Your task to perform on an android device: Open Reddit.com Image 0: 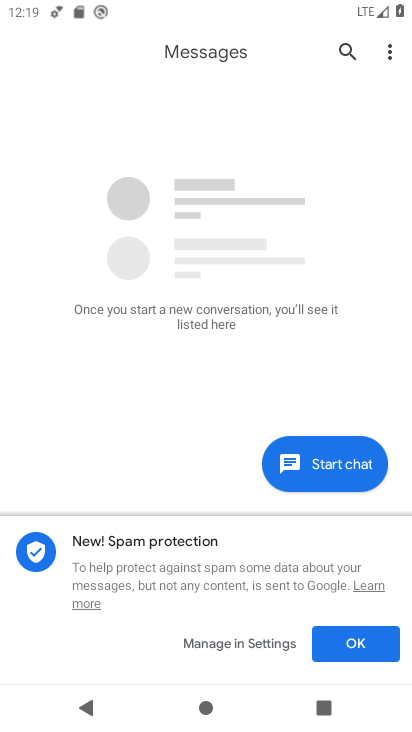
Step 0: press home button
Your task to perform on an android device: Open Reddit.com Image 1: 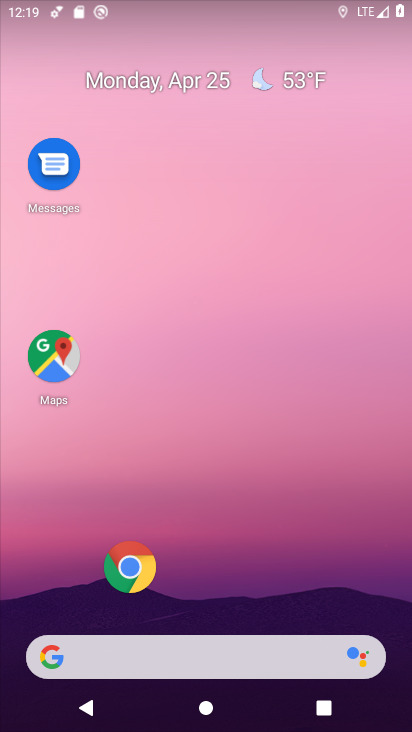
Step 1: drag from (188, 544) to (282, 278)
Your task to perform on an android device: Open Reddit.com Image 2: 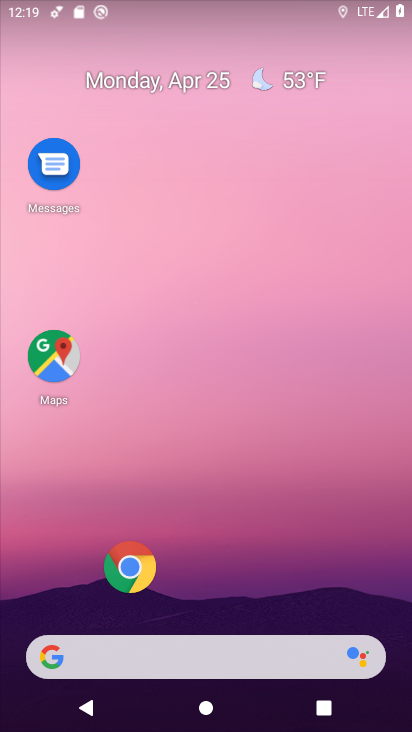
Step 2: drag from (271, 462) to (338, 6)
Your task to perform on an android device: Open Reddit.com Image 3: 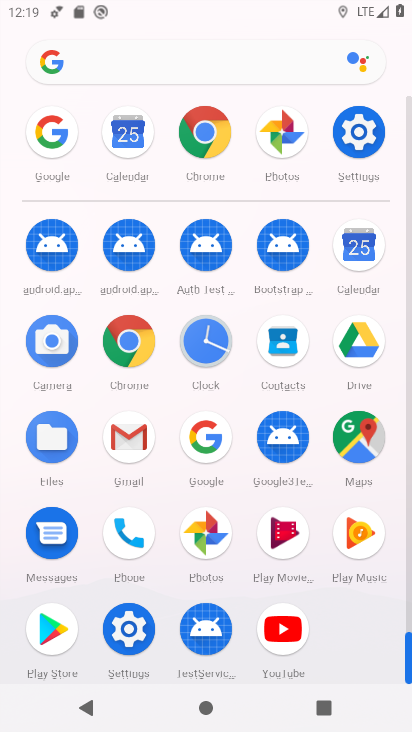
Step 3: click (221, 165)
Your task to perform on an android device: Open Reddit.com Image 4: 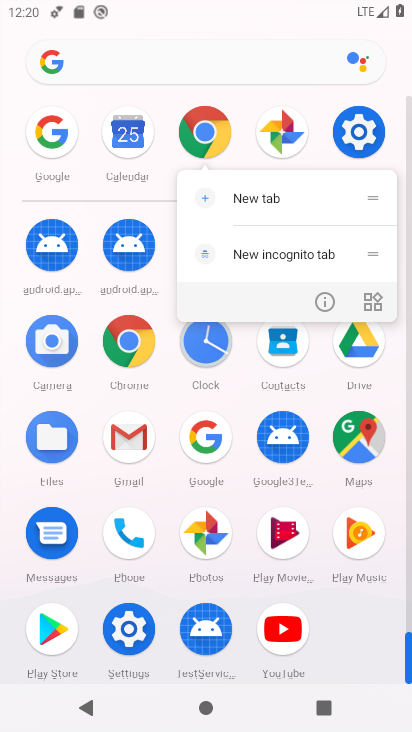
Step 4: click (213, 133)
Your task to perform on an android device: Open Reddit.com Image 5: 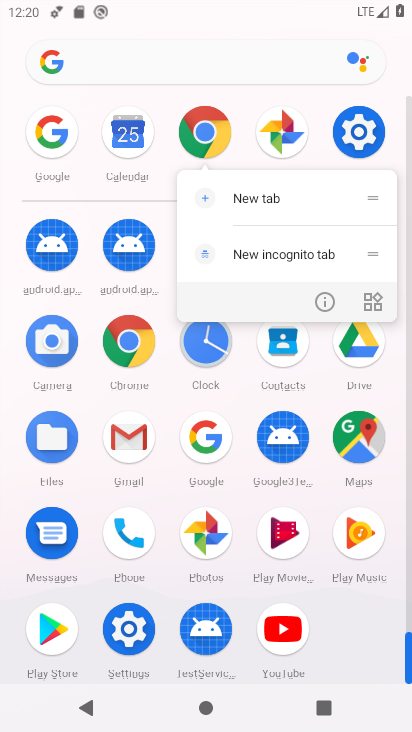
Step 5: click (216, 109)
Your task to perform on an android device: Open Reddit.com Image 6: 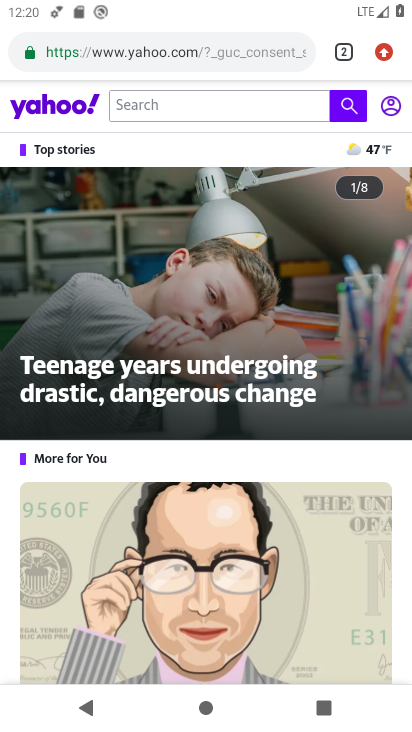
Step 6: click (263, 56)
Your task to perform on an android device: Open Reddit.com Image 7: 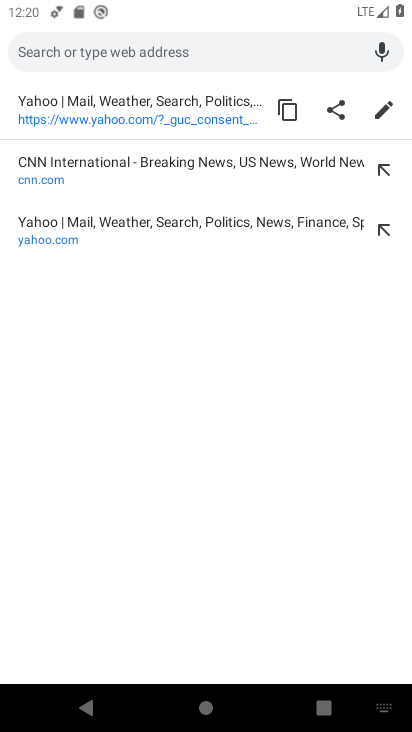
Step 7: click (232, 54)
Your task to perform on an android device: Open Reddit.com Image 8: 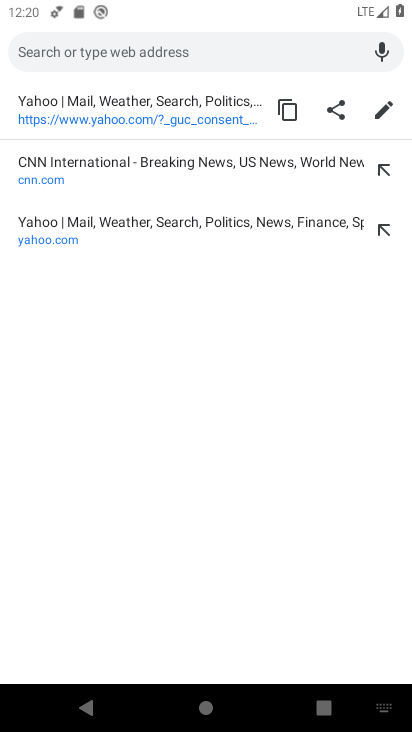
Step 8: type "reddit.com"
Your task to perform on an android device: Open Reddit.com Image 9: 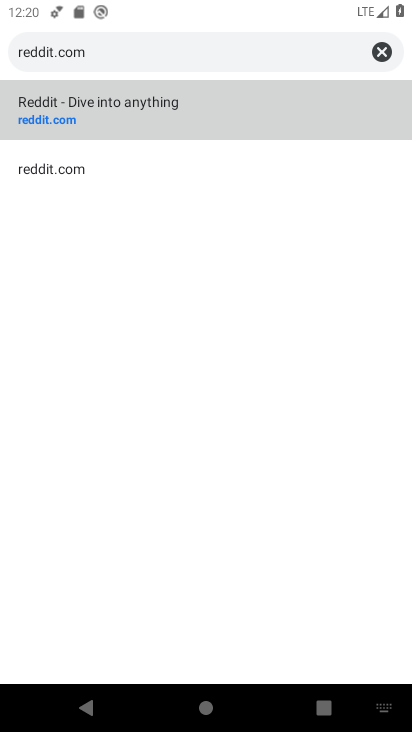
Step 9: click (332, 111)
Your task to perform on an android device: Open Reddit.com Image 10: 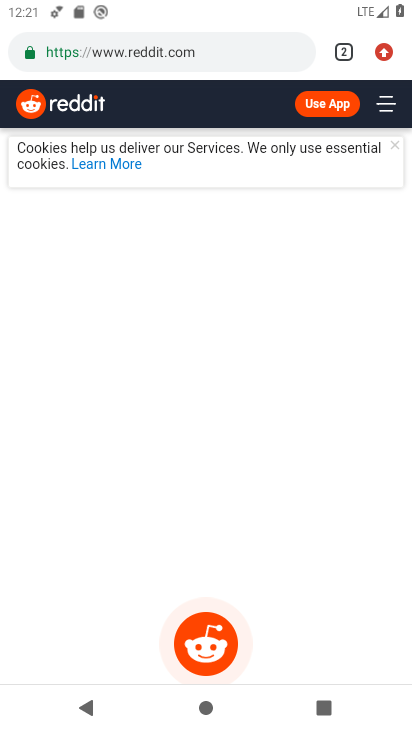
Step 10: task complete